Your task to perform on an android device: Go to Maps Image 0: 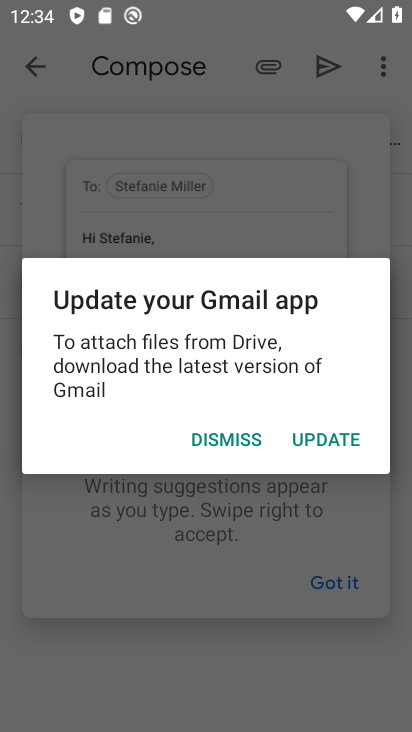
Step 0: press home button
Your task to perform on an android device: Go to Maps Image 1: 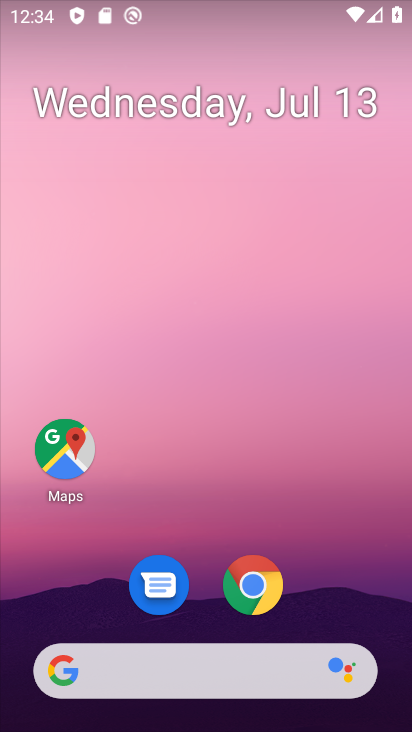
Step 1: click (65, 456)
Your task to perform on an android device: Go to Maps Image 2: 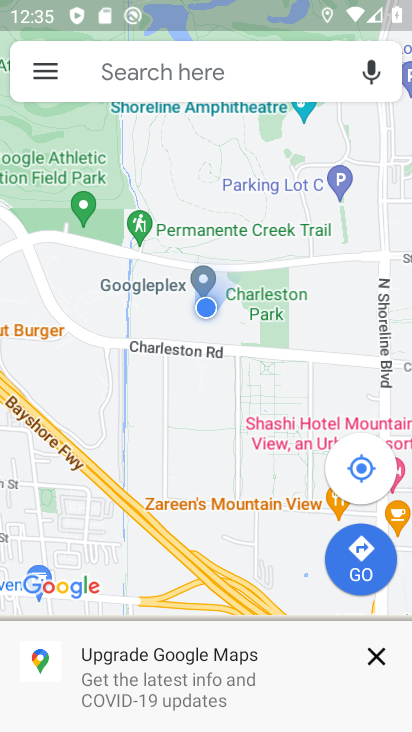
Step 2: task complete